Your task to perform on an android device: Open the Play Movies app and select the watchlist tab. Image 0: 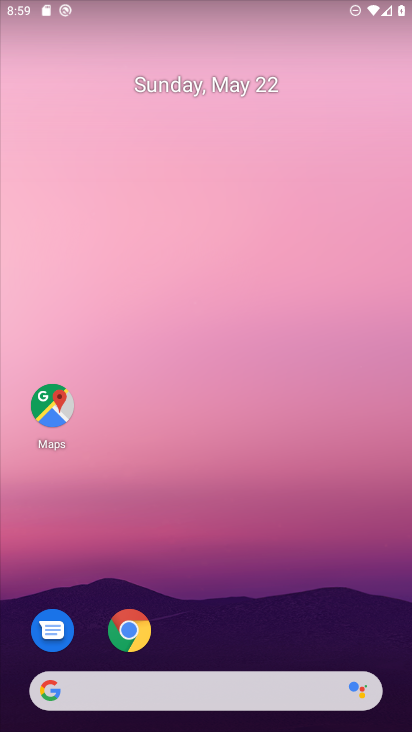
Step 0: drag from (272, 625) to (273, 188)
Your task to perform on an android device: Open the Play Movies app and select the watchlist tab. Image 1: 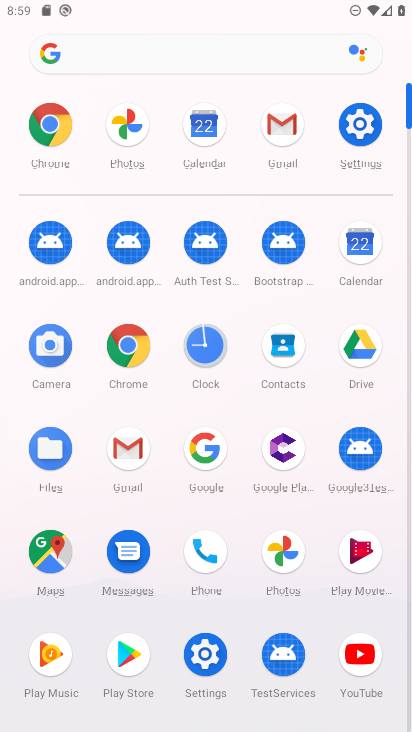
Step 1: click (378, 586)
Your task to perform on an android device: Open the Play Movies app and select the watchlist tab. Image 2: 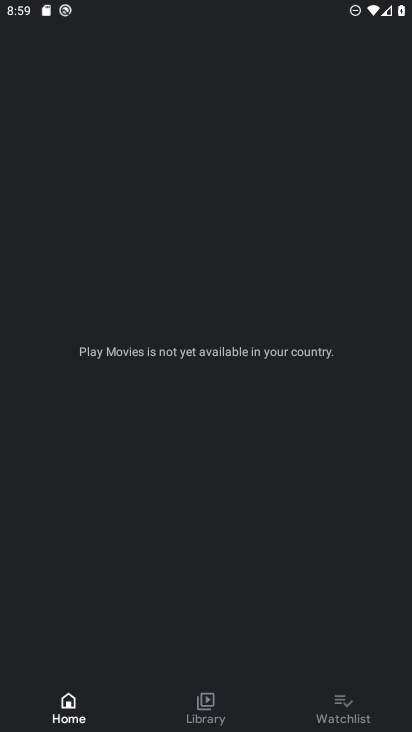
Step 2: click (359, 692)
Your task to perform on an android device: Open the Play Movies app and select the watchlist tab. Image 3: 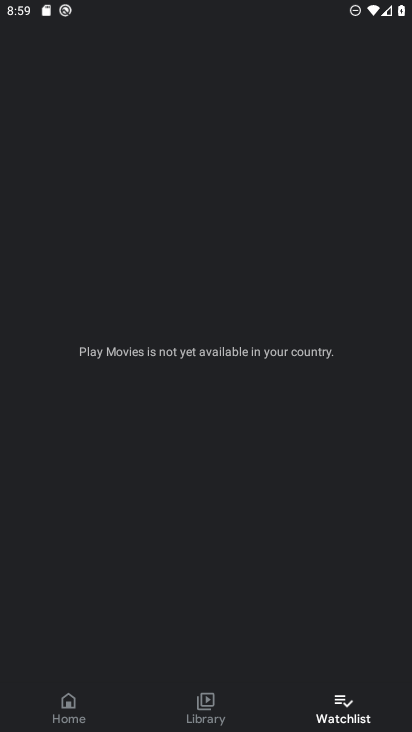
Step 3: task complete